Your task to perform on an android device: turn off wifi Image 0: 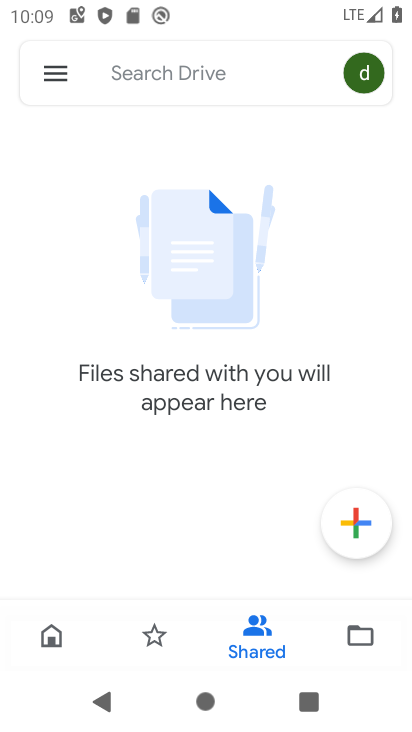
Step 0: press home button
Your task to perform on an android device: turn off wifi Image 1: 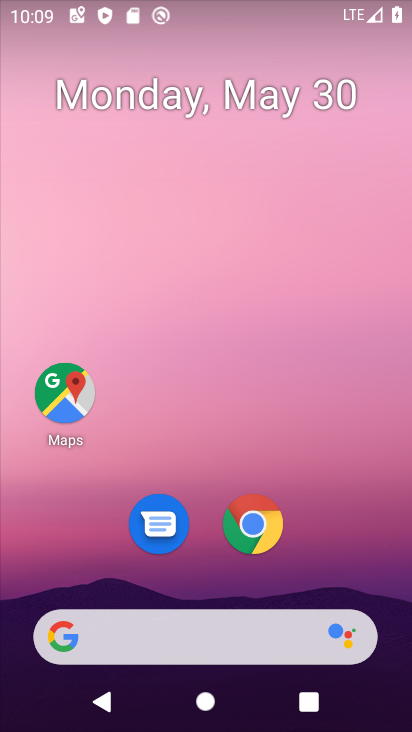
Step 1: drag from (335, 529) to (300, 62)
Your task to perform on an android device: turn off wifi Image 2: 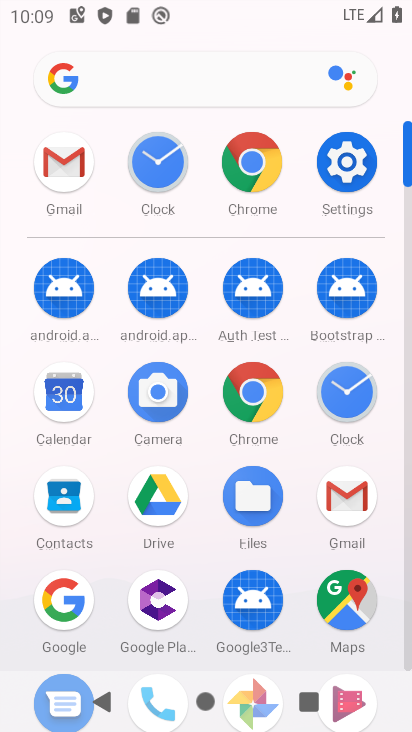
Step 2: click (334, 165)
Your task to perform on an android device: turn off wifi Image 3: 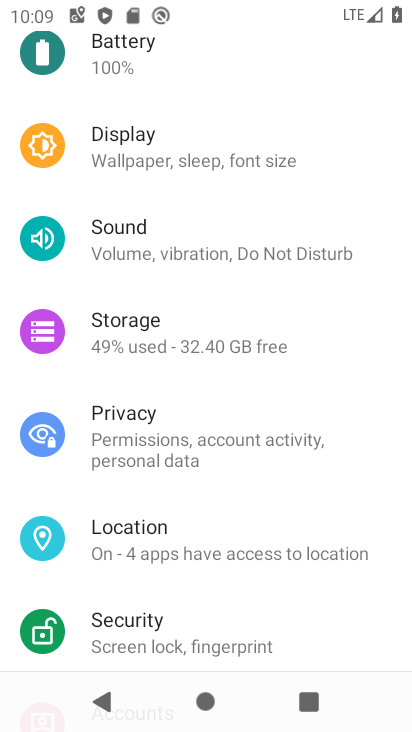
Step 3: drag from (230, 198) to (284, 616)
Your task to perform on an android device: turn off wifi Image 4: 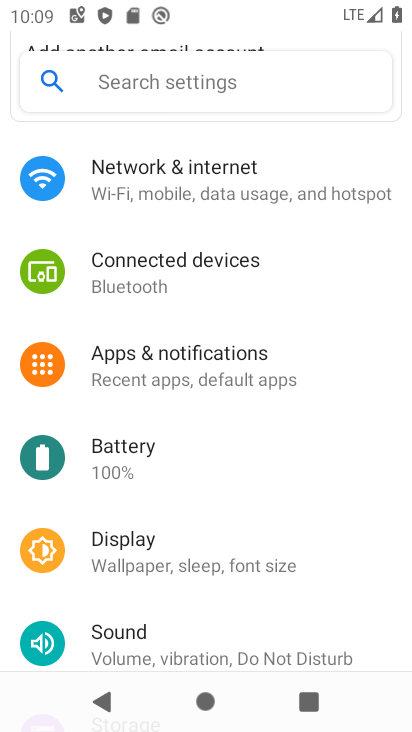
Step 4: drag from (248, 325) to (278, 592)
Your task to perform on an android device: turn off wifi Image 5: 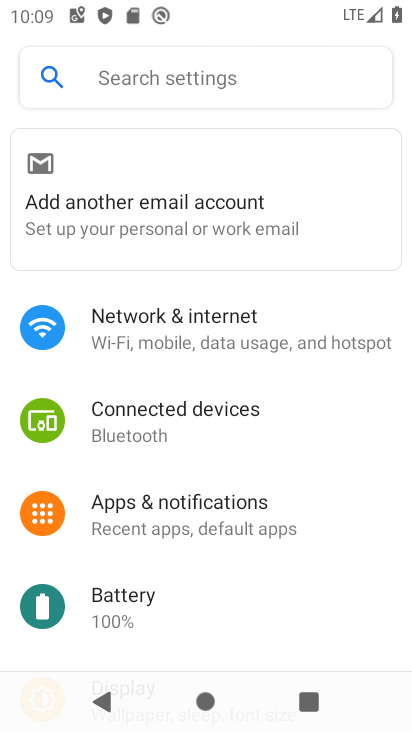
Step 5: click (220, 341)
Your task to perform on an android device: turn off wifi Image 6: 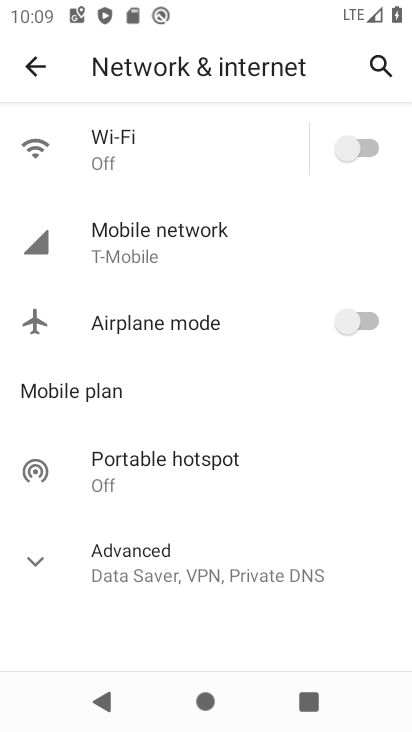
Step 6: click (112, 152)
Your task to perform on an android device: turn off wifi Image 7: 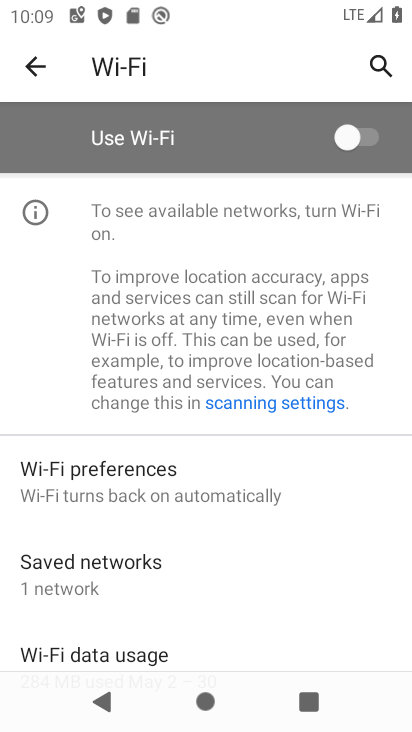
Step 7: task complete